Your task to perform on an android device: Find the nearest electronics store that's open tomorrow Image 0: 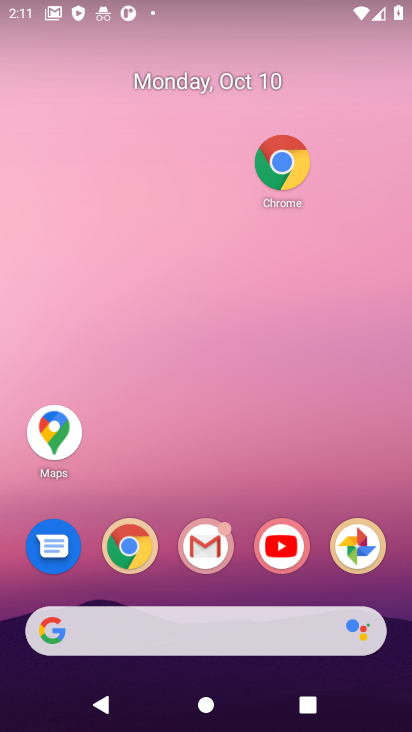
Step 0: click (115, 647)
Your task to perform on an android device: Find the nearest electronics store that's open tomorrow Image 1: 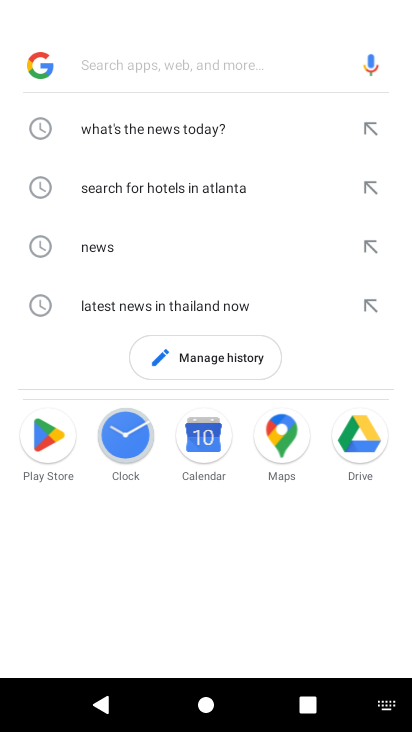
Step 1: type "Find the nearest electronics store that's open tomorrow"
Your task to perform on an android device: Find the nearest electronics store that's open tomorrow Image 2: 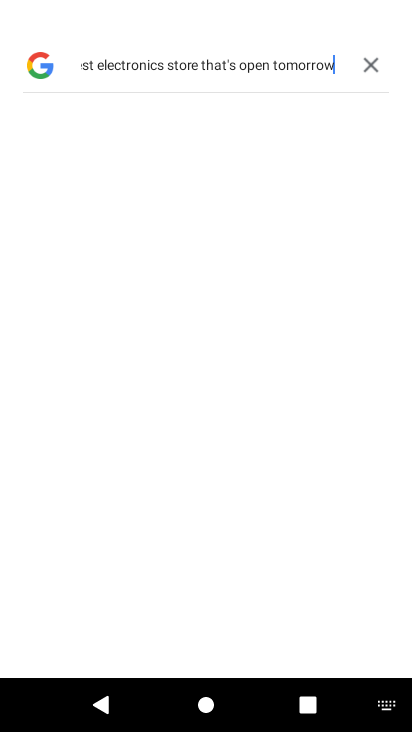
Step 2: task complete